Your task to perform on an android device: move an email to a new category in the gmail app Image 0: 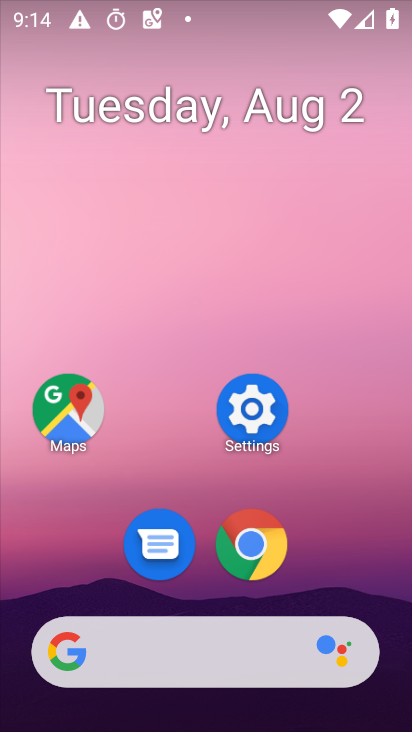
Step 0: drag from (201, 662) to (312, 60)
Your task to perform on an android device: move an email to a new category in the gmail app Image 1: 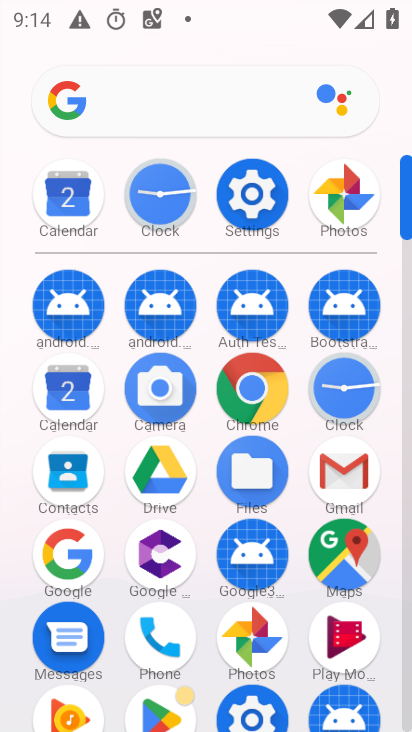
Step 1: click (343, 481)
Your task to perform on an android device: move an email to a new category in the gmail app Image 2: 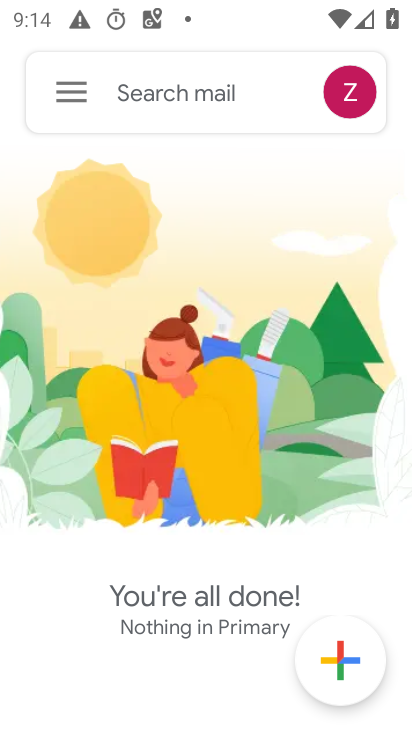
Step 2: task complete